Your task to perform on an android device: turn off wifi Image 0: 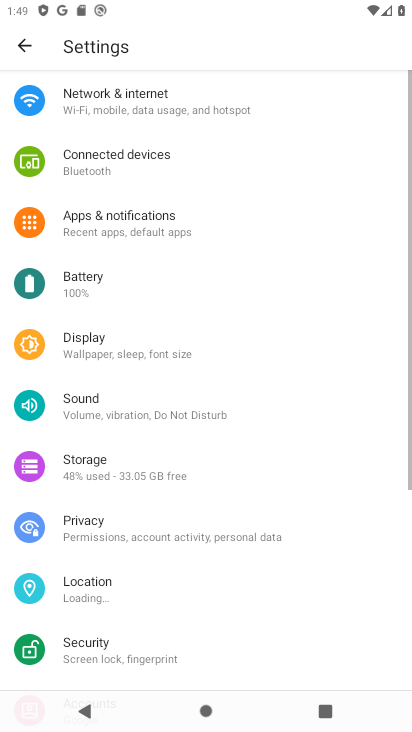
Step 0: press home button
Your task to perform on an android device: turn off wifi Image 1: 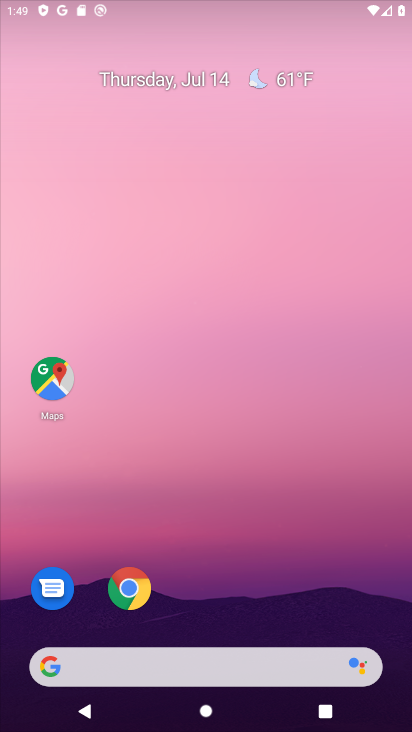
Step 1: drag from (207, 618) to (220, 62)
Your task to perform on an android device: turn off wifi Image 2: 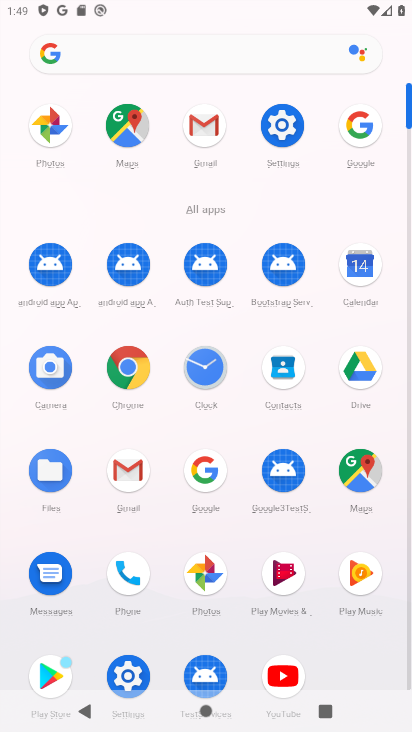
Step 2: click (283, 121)
Your task to perform on an android device: turn off wifi Image 3: 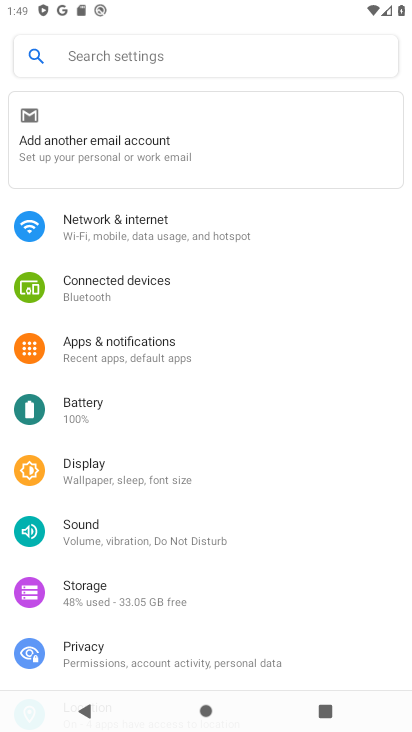
Step 3: click (149, 239)
Your task to perform on an android device: turn off wifi Image 4: 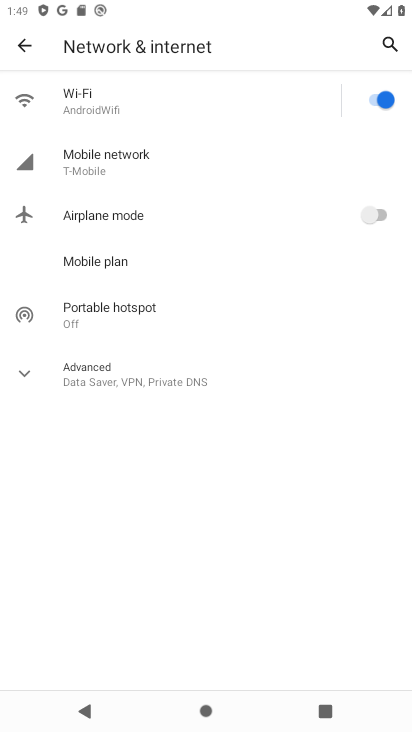
Step 4: click (386, 100)
Your task to perform on an android device: turn off wifi Image 5: 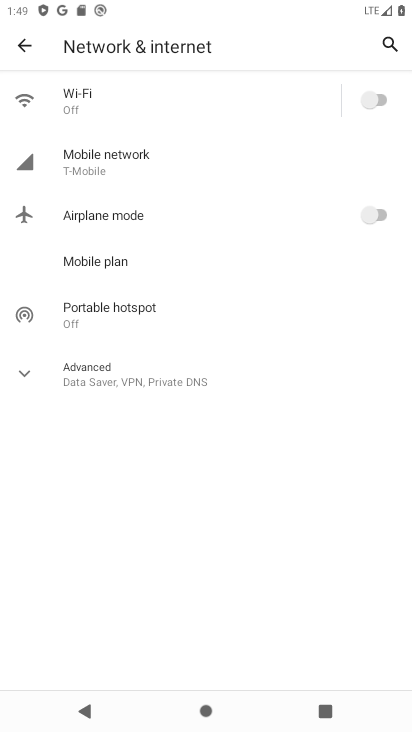
Step 5: task complete